Your task to perform on an android device: install app "McDonald's" Image 0: 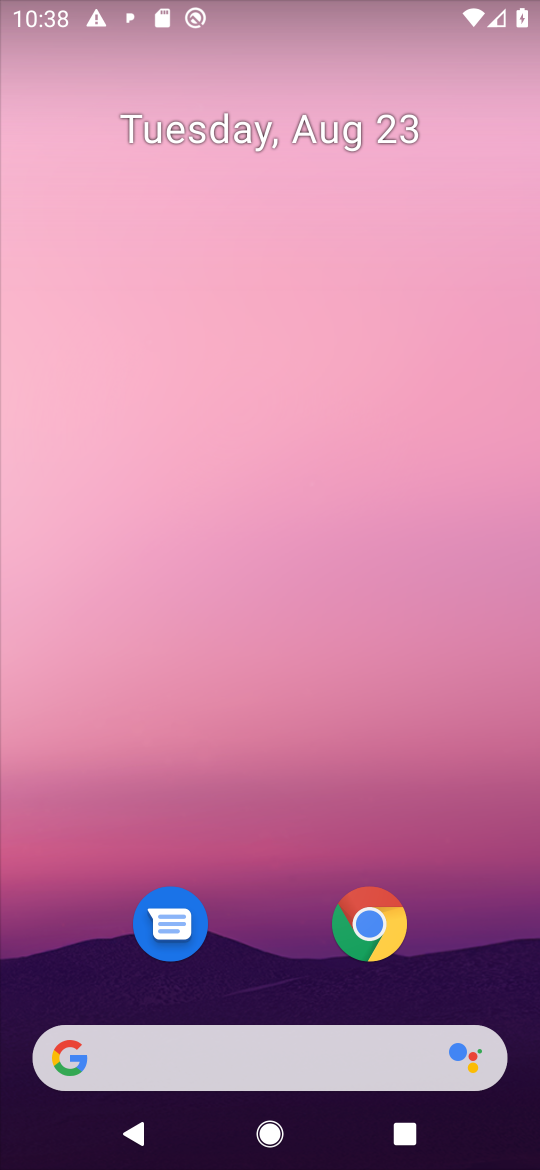
Step 0: press home button
Your task to perform on an android device: install app "McDonald's" Image 1: 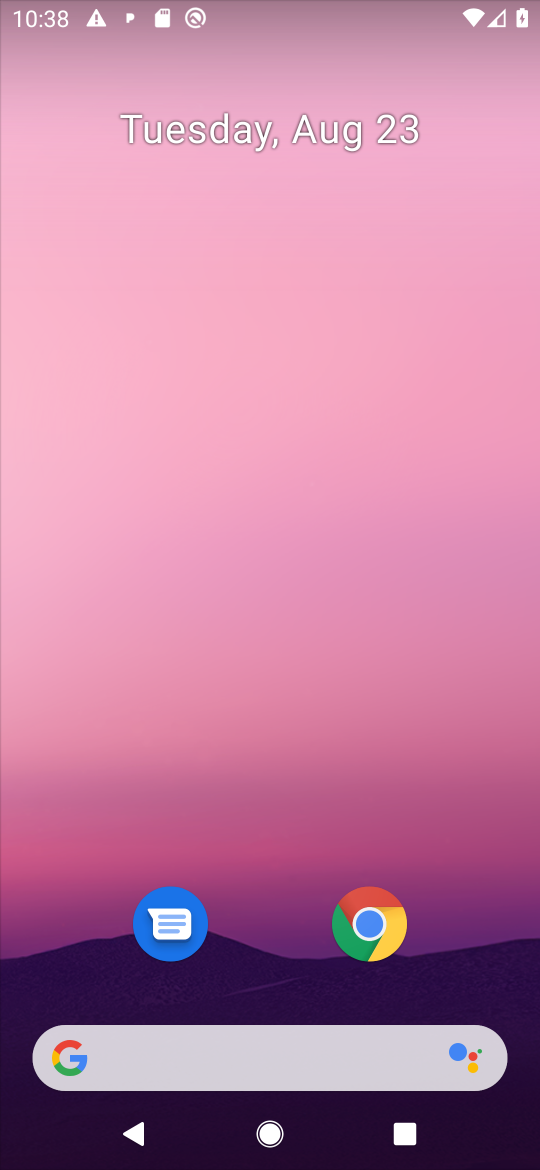
Step 1: drag from (452, 958) to (479, 158)
Your task to perform on an android device: install app "McDonald's" Image 2: 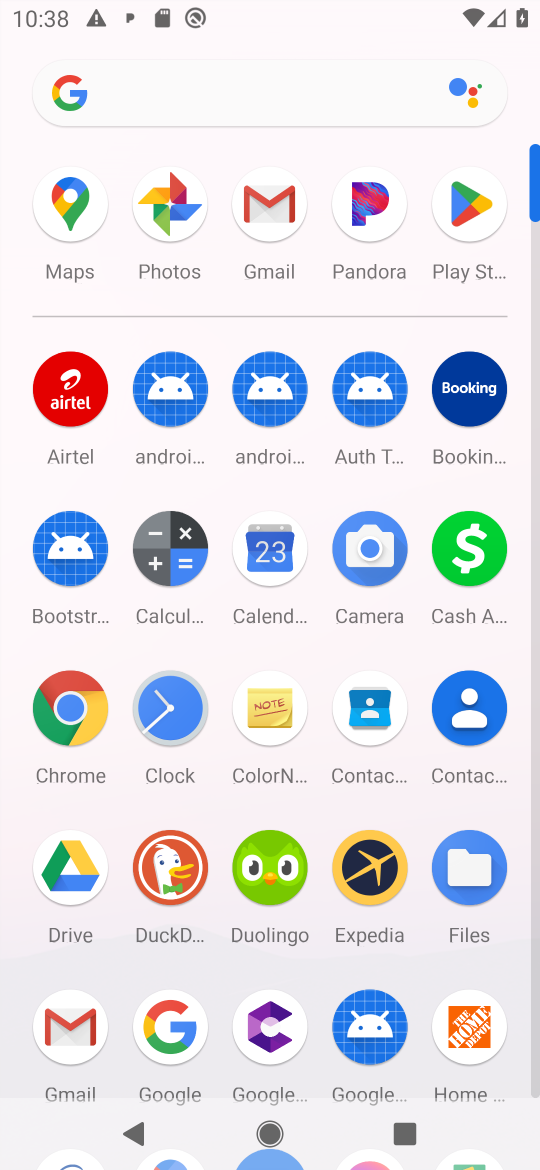
Step 2: click (471, 210)
Your task to perform on an android device: install app "McDonald's" Image 3: 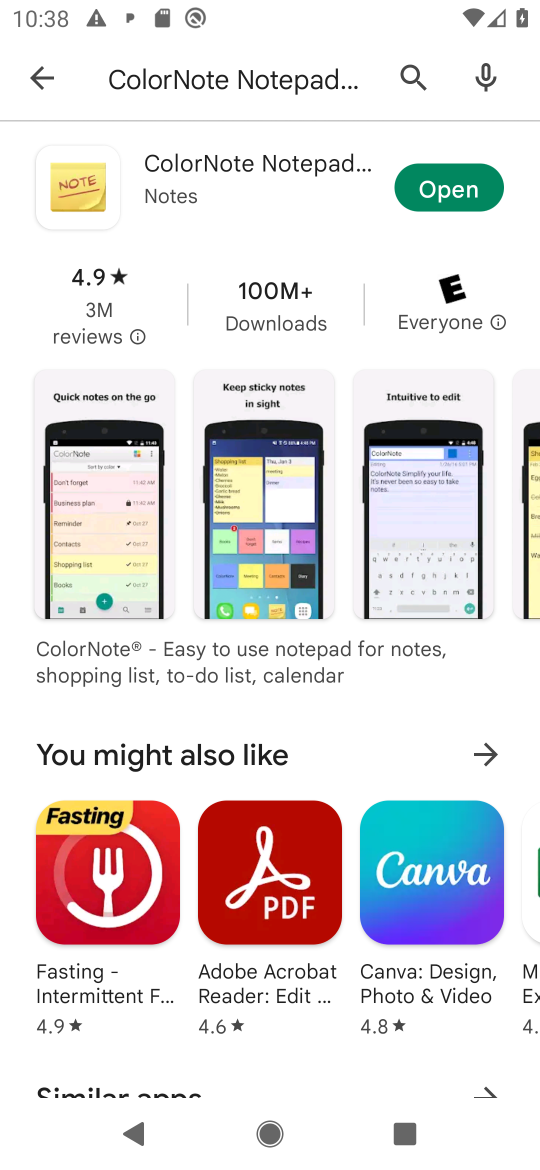
Step 3: press back button
Your task to perform on an android device: install app "McDonald's" Image 4: 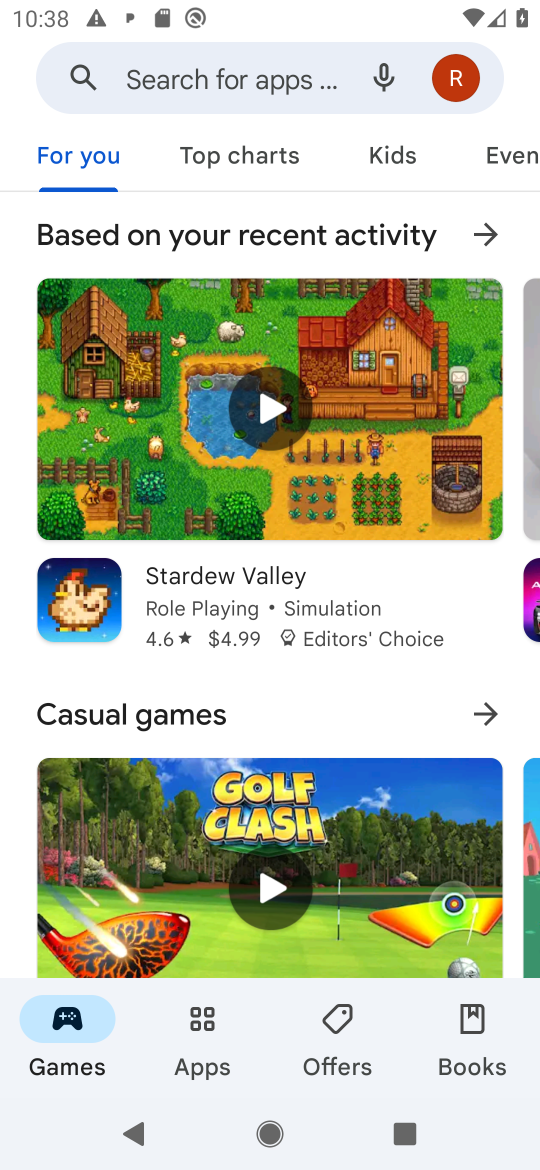
Step 4: click (234, 74)
Your task to perform on an android device: install app "McDonald's" Image 5: 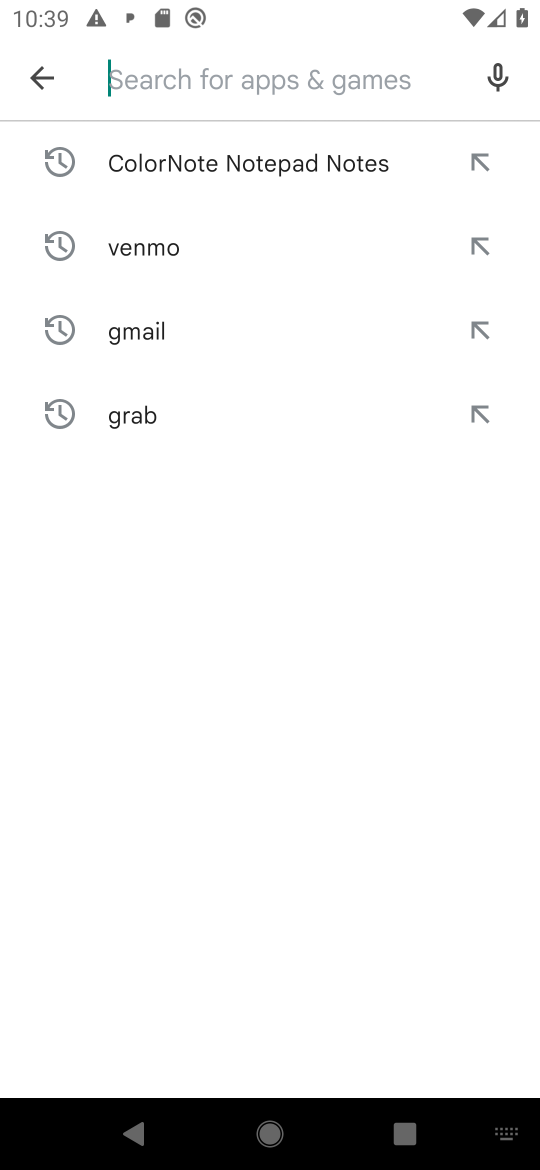
Step 5: press enter
Your task to perform on an android device: install app "McDonald's" Image 6: 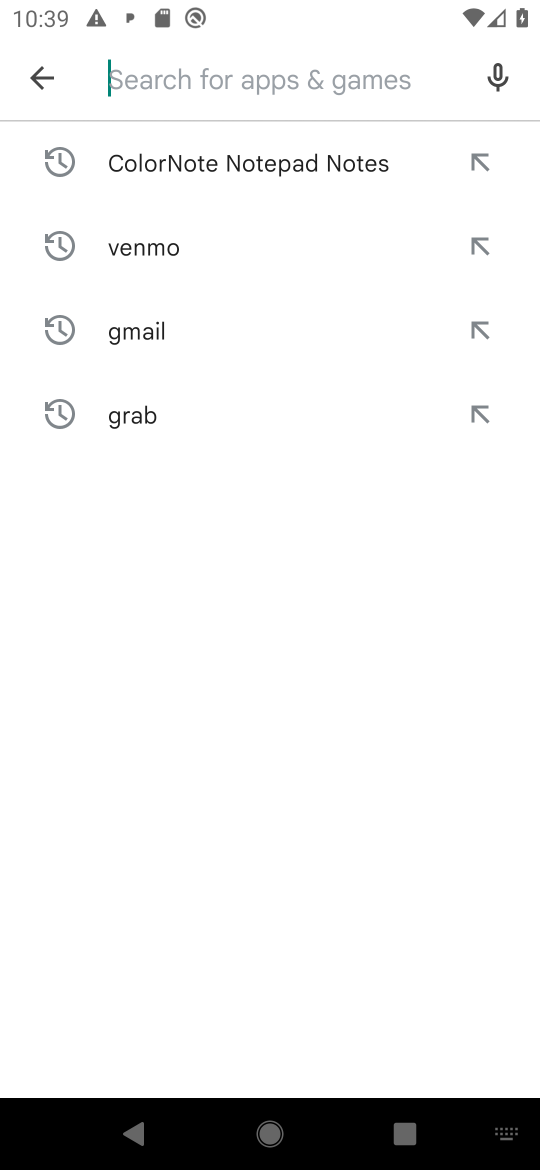
Step 6: type "mcdonalds"
Your task to perform on an android device: install app "McDonald's" Image 7: 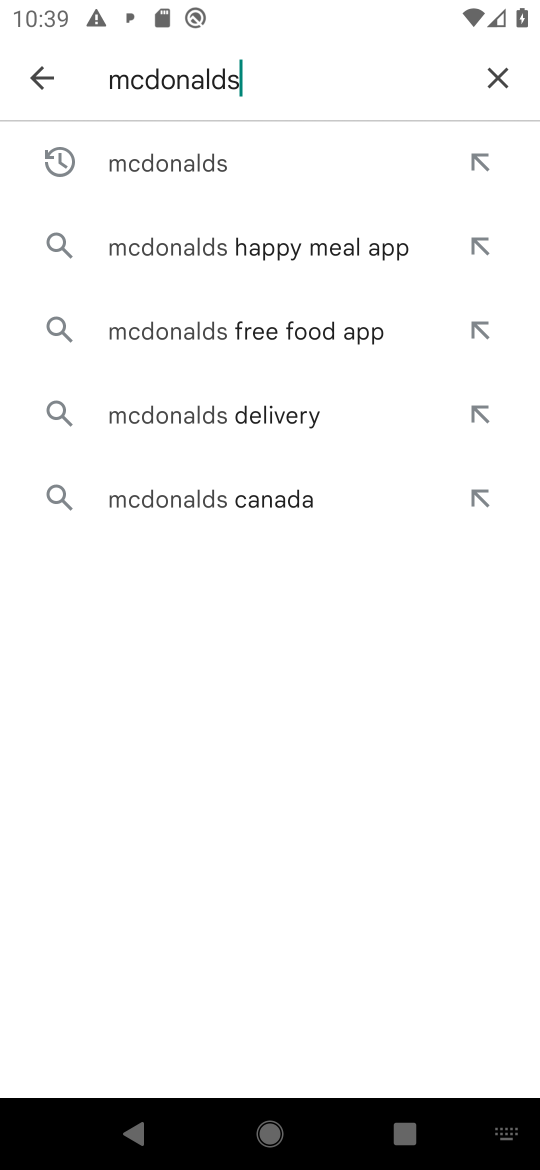
Step 7: click (180, 162)
Your task to perform on an android device: install app "McDonald's" Image 8: 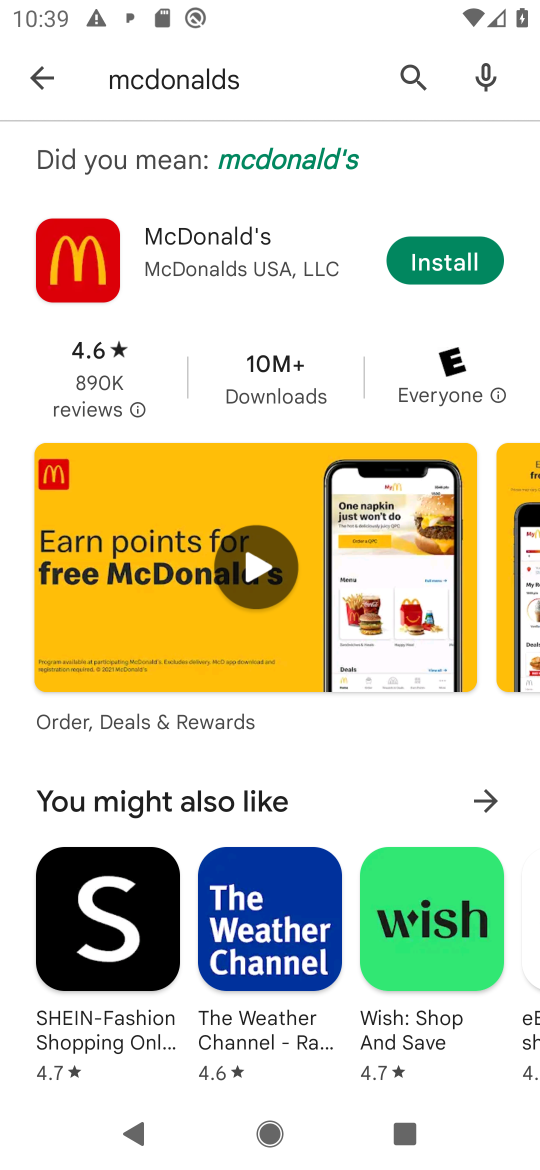
Step 8: click (435, 254)
Your task to perform on an android device: install app "McDonald's" Image 9: 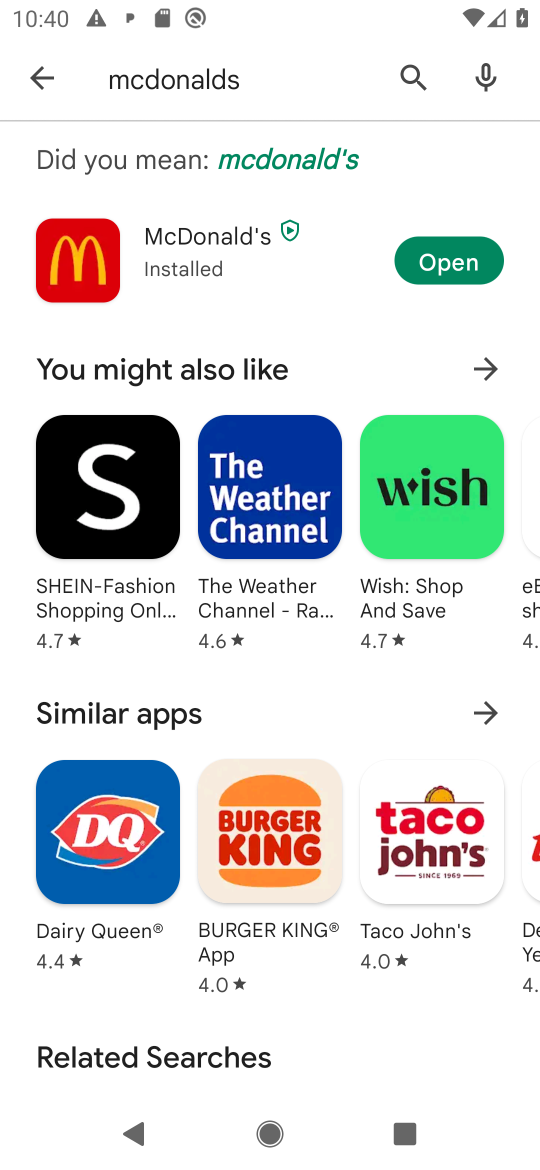
Step 9: task complete